Your task to perform on an android device: Open ESPN.com Image 0: 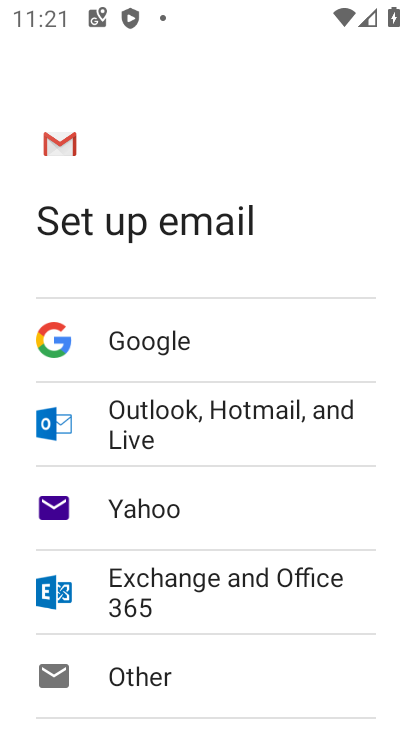
Step 0: press home button
Your task to perform on an android device: Open ESPN.com Image 1: 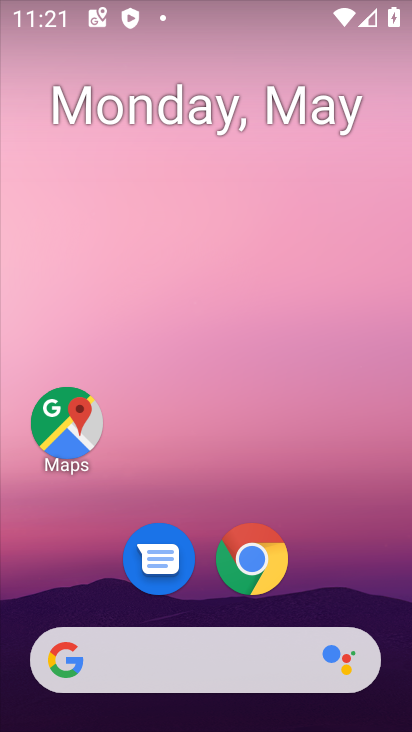
Step 1: click (251, 583)
Your task to perform on an android device: Open ESPN.com Image 2: 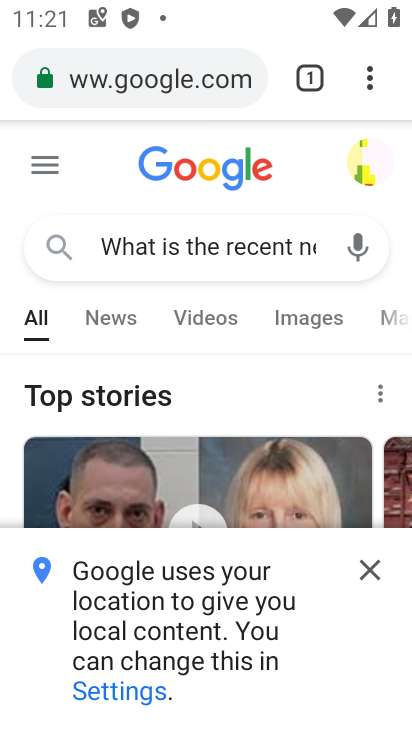
Step 2: drag from (368, 79) to (249, 138)
Your task to perform on an android device: Open ESPN.com Image 3: 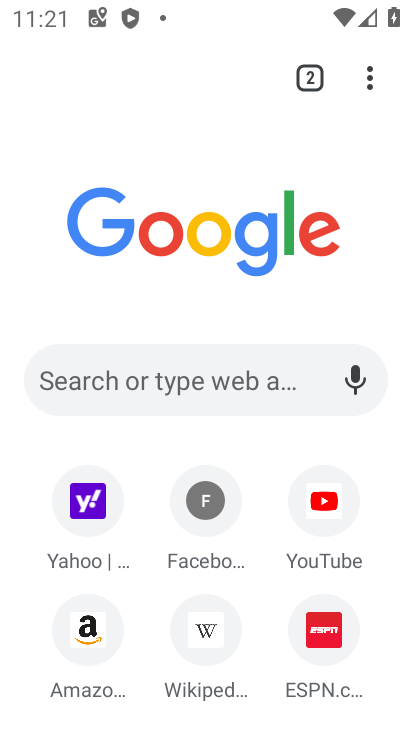
Step 3: click (315, 658)
Your task to perform on an android device: Open ESPN.com Image 4: 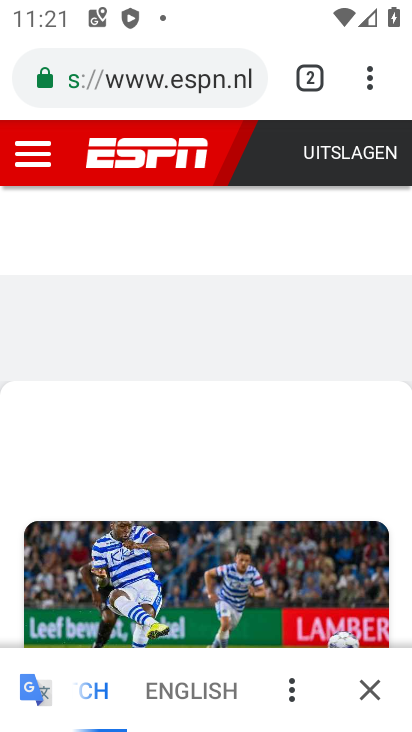
Step 4: task complete